Your task to perform on an android device: Search for "razer naga" on target, select the first entry, and add it to the cart. Image 0: 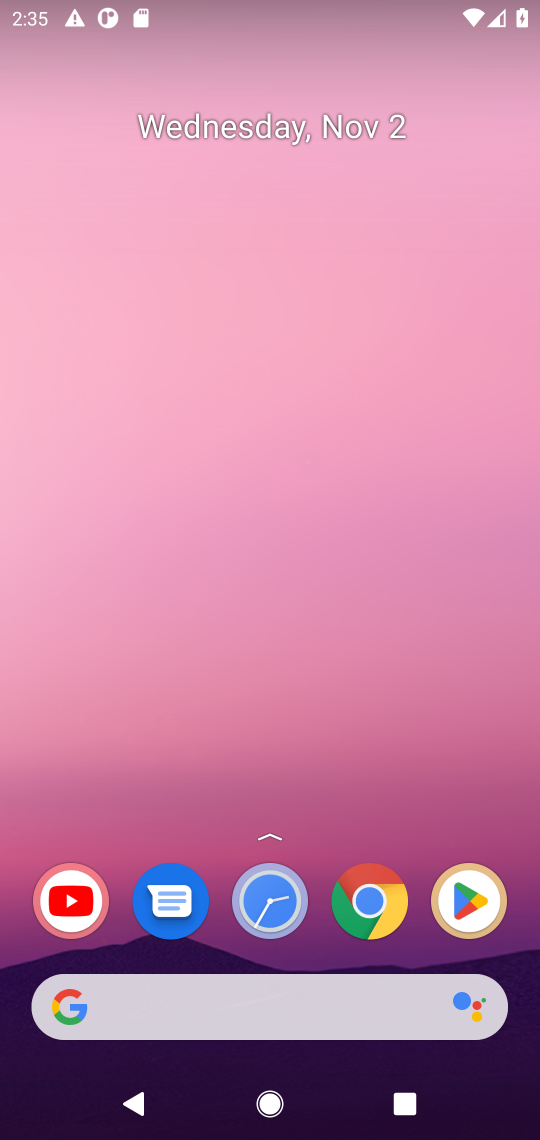
Step 0: drag from (303, 806) to (336, 86)
Your task to perform on an android device: Search for "razer naga" on target, select the first entry, and add it to the cart. Image 1: 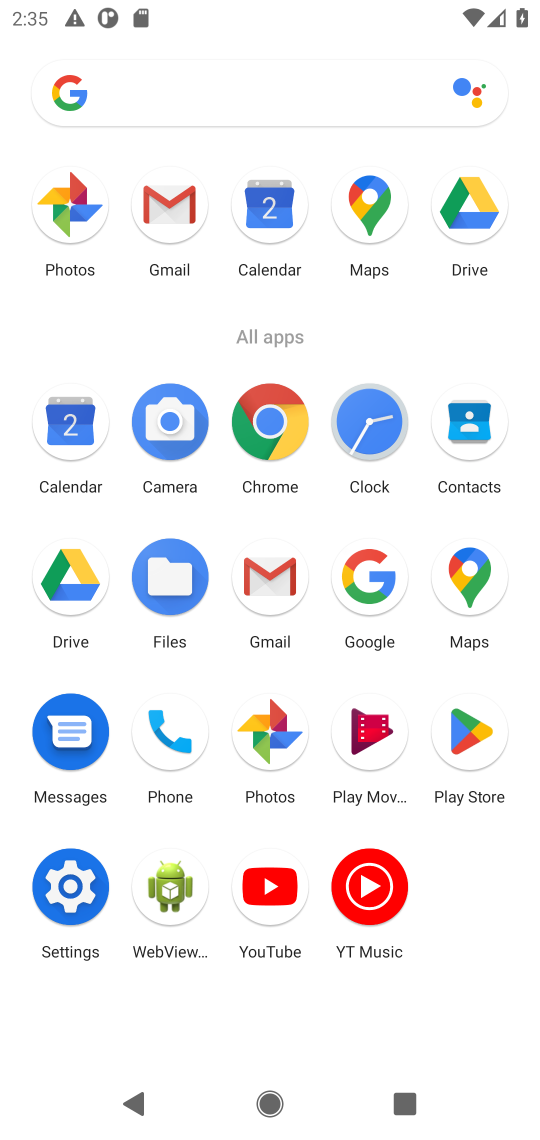
Step 1: click (270, 411)
Your task to perform on an android device: Search for "razer naga" on target, select the first entry, and add it to the cart. Image 2: 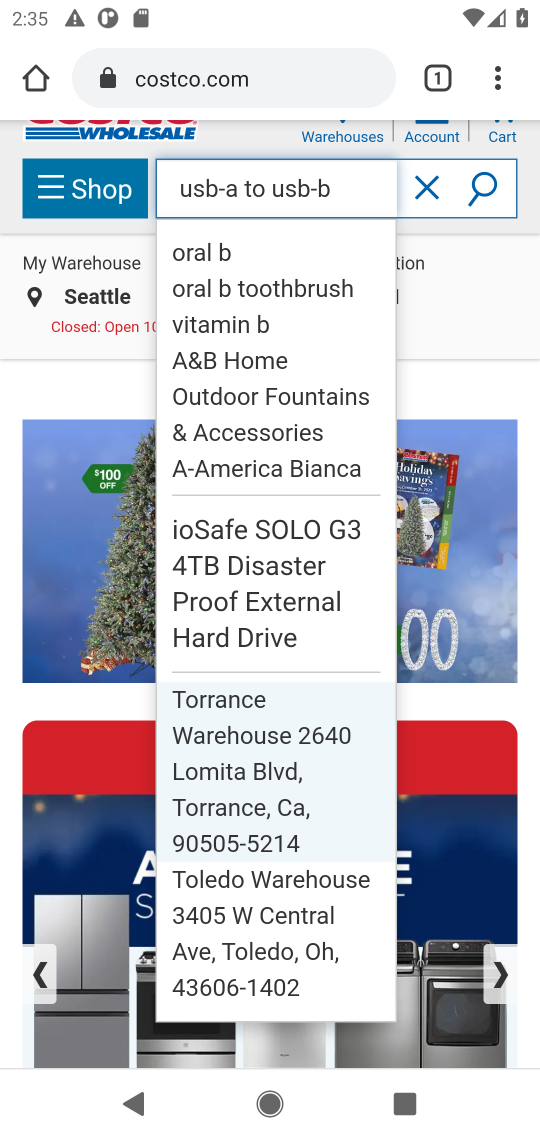
Step 2: click (236, 72)
Your task to perform on an android device: Search for "razer naga" on target, select the first entry, and add it to the cart. Image 3: 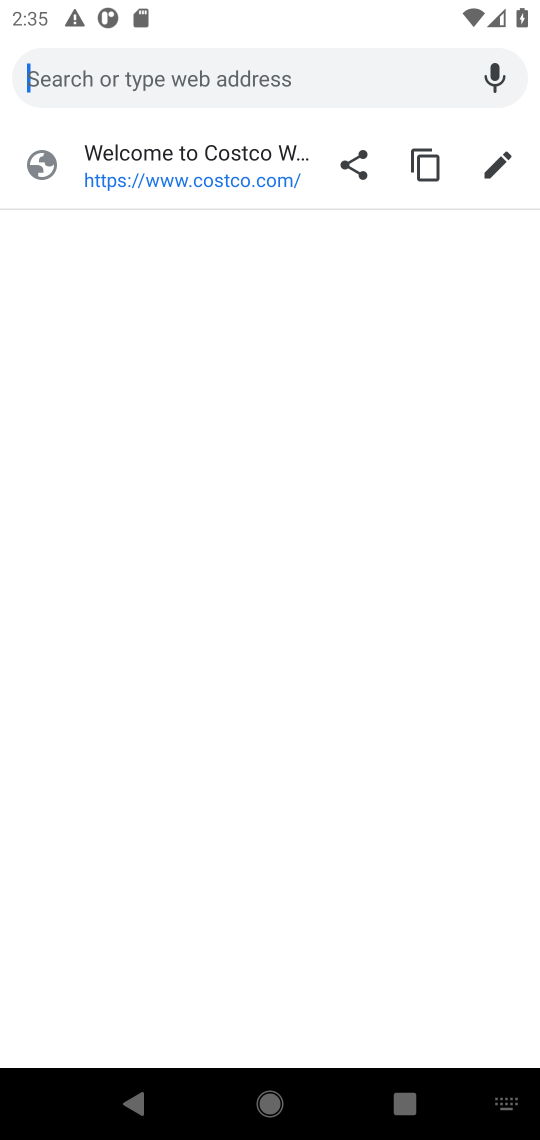
Step 3: type "target"
Your task to perform on an android device: Search for "razer naga" on target, select the first entry, and add it to the cart. Image 4: 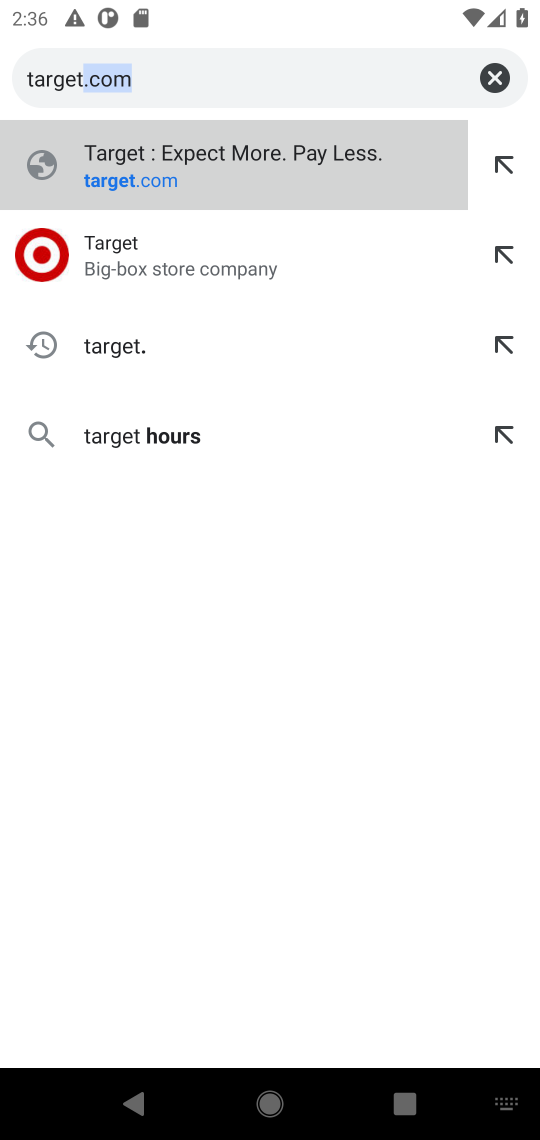
Step 4: click (148, 176)
Your task to perform on an android device: Search for "razer naga" on target, select the first entry, and add it to the cart. Image 5: 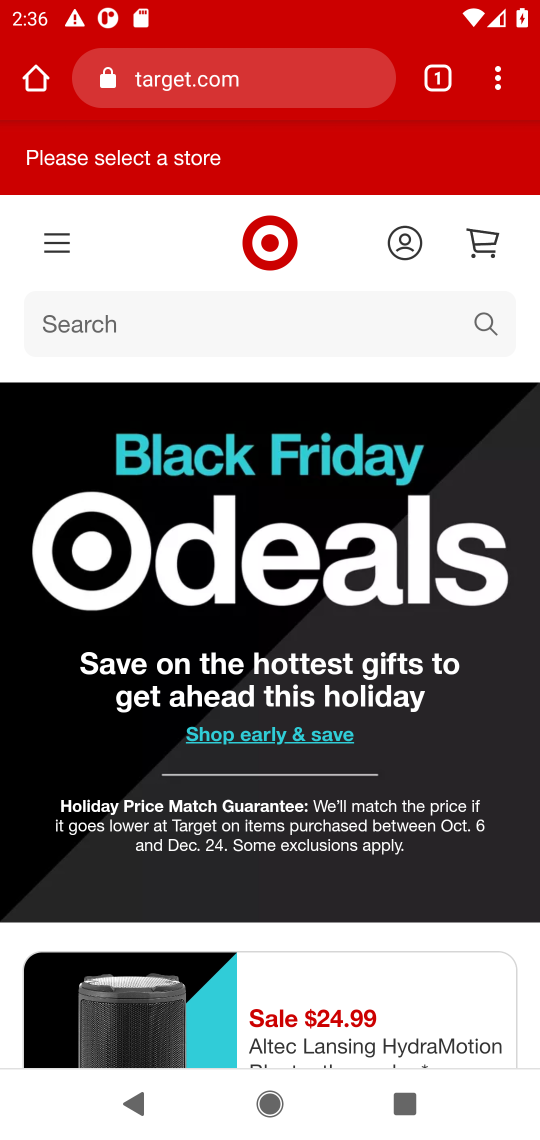
Step 5: click (94, 313)
Your task to perform on an android device: Search for "razer naga" on target, select the first entry, and add it to the cart. Image 6: 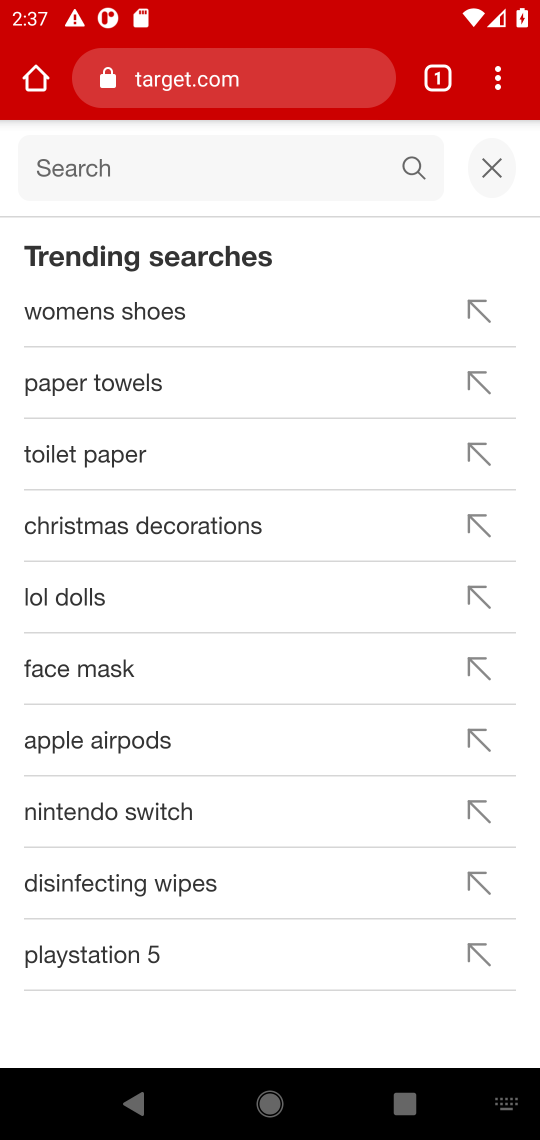
Step 6: type "razer naga"
Your task to perform on an android device: Search for "razer naga" on target, select the first entry, and add it to the cart. Image 7: 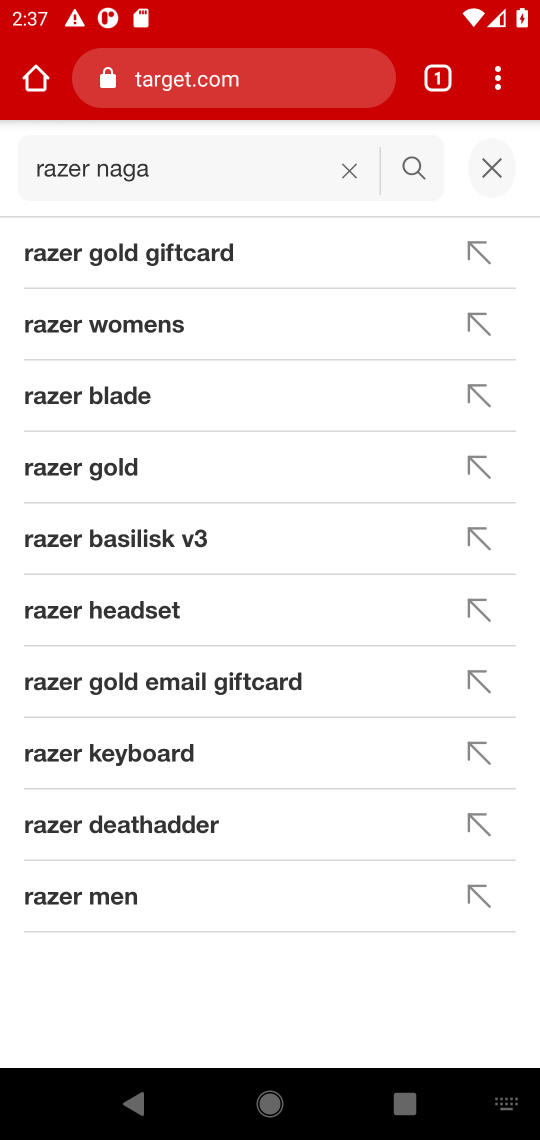
Step 7: task complete